Your task to perform on an android device: toggle wifi Image 0: 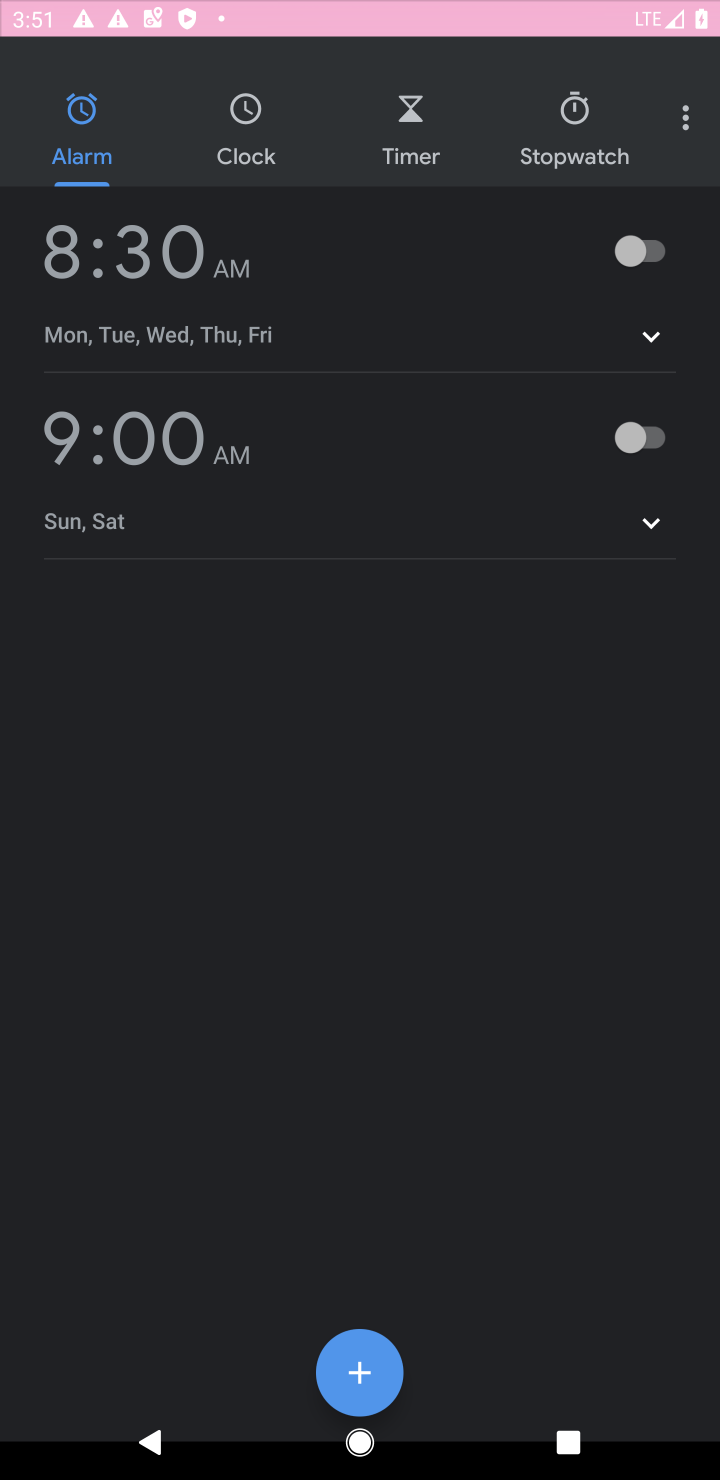
Step 0: press home button
Your task to perform on an android device: toggle wifi Image 1: 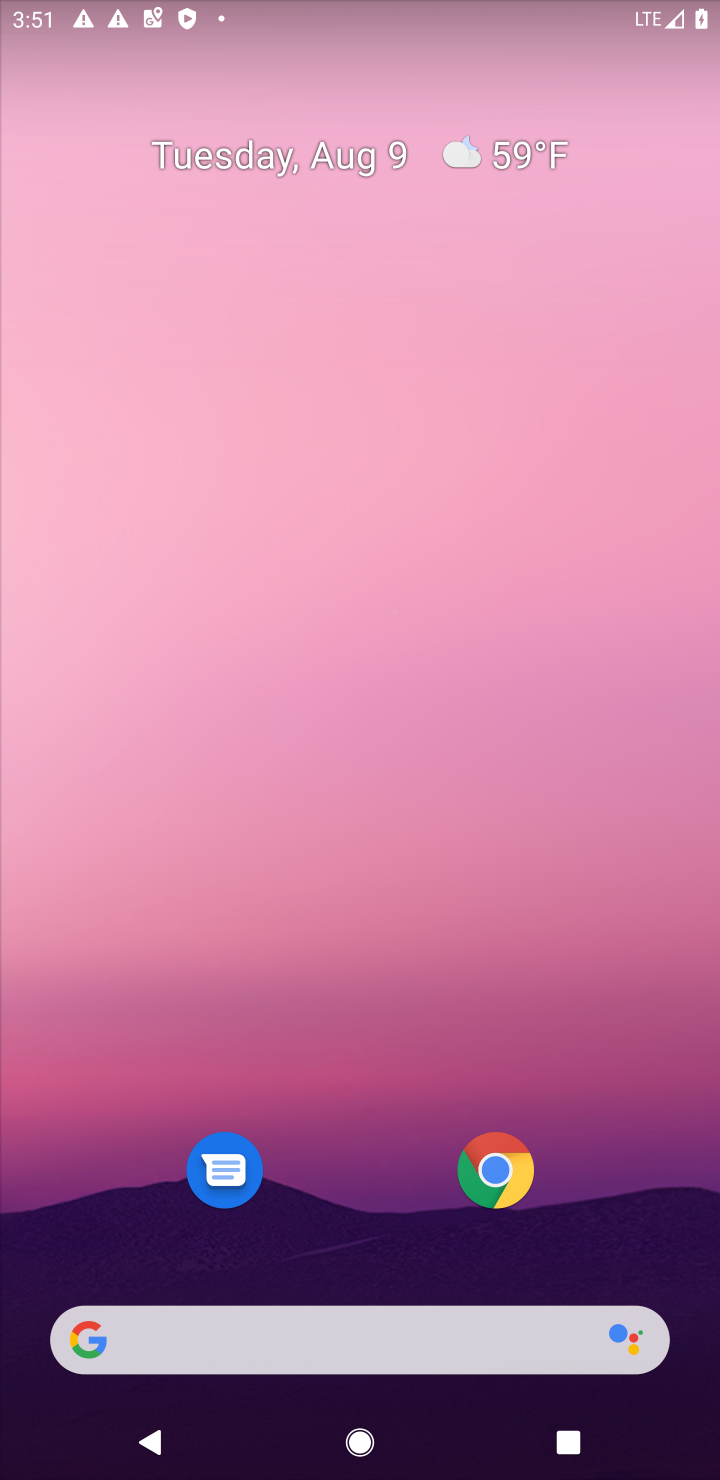
Step 1: drag from (363, 1164) to (374, 53)
Your task to perform on an android device: toggle wifi Image 2: 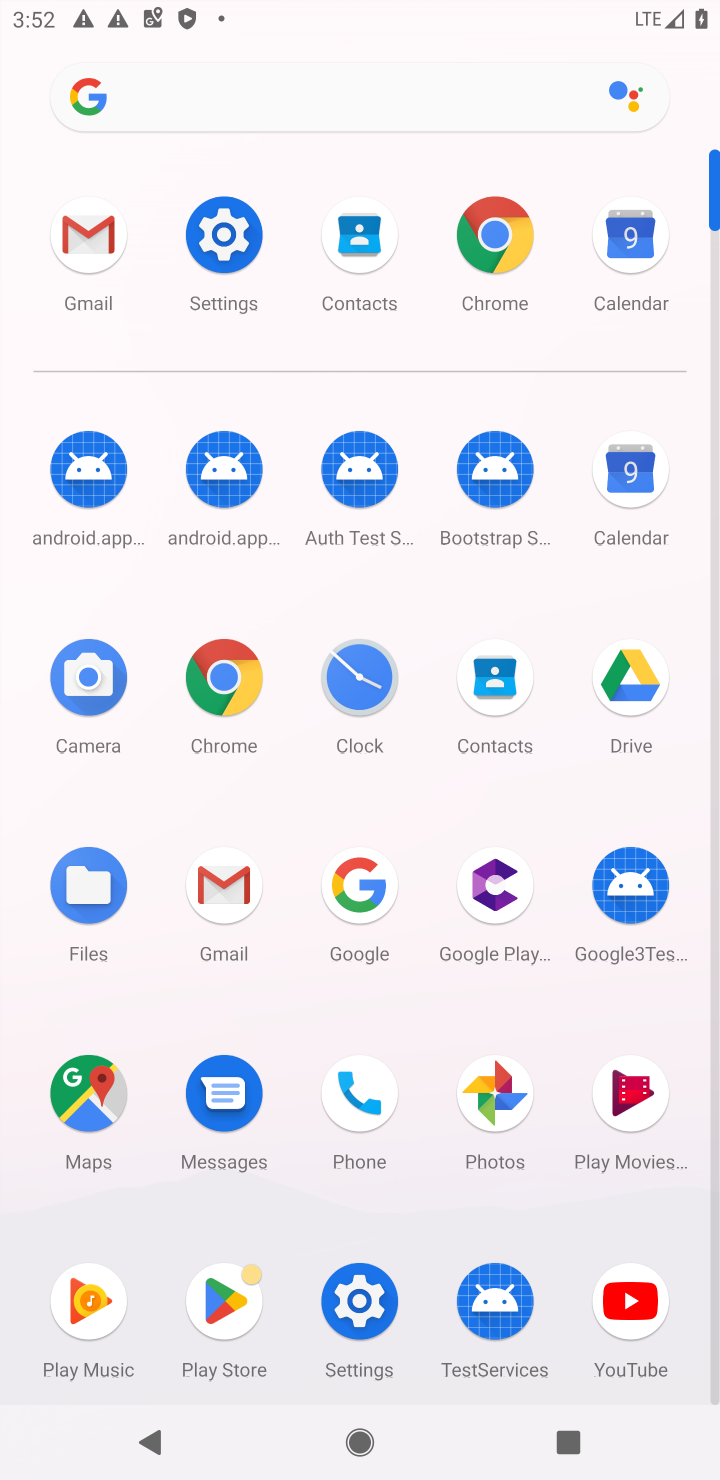
Step 2: click (228, 239)
Your task to perform on an android device: toggle wifi Image 3: 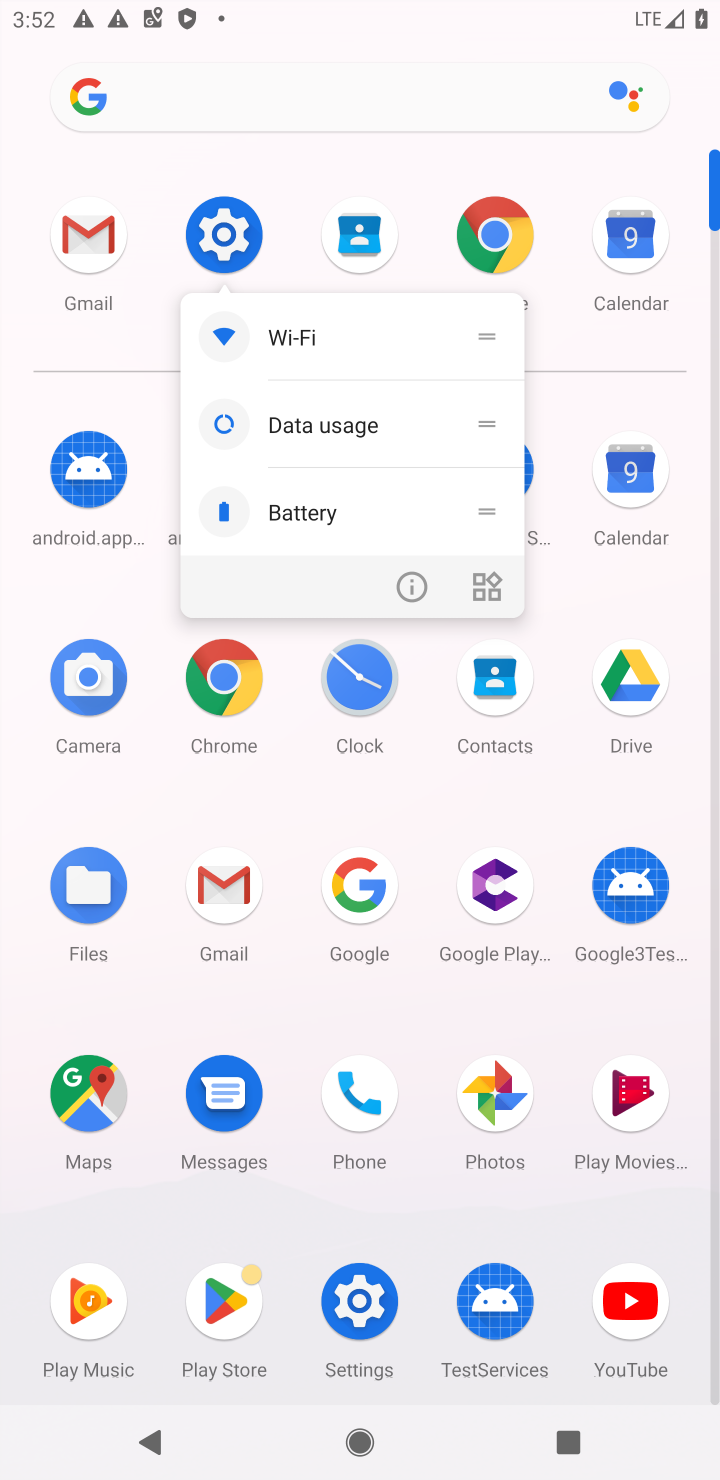
Step 3: click (229, 223)
Your task to perform on an android device: toggle wifi Image 4: 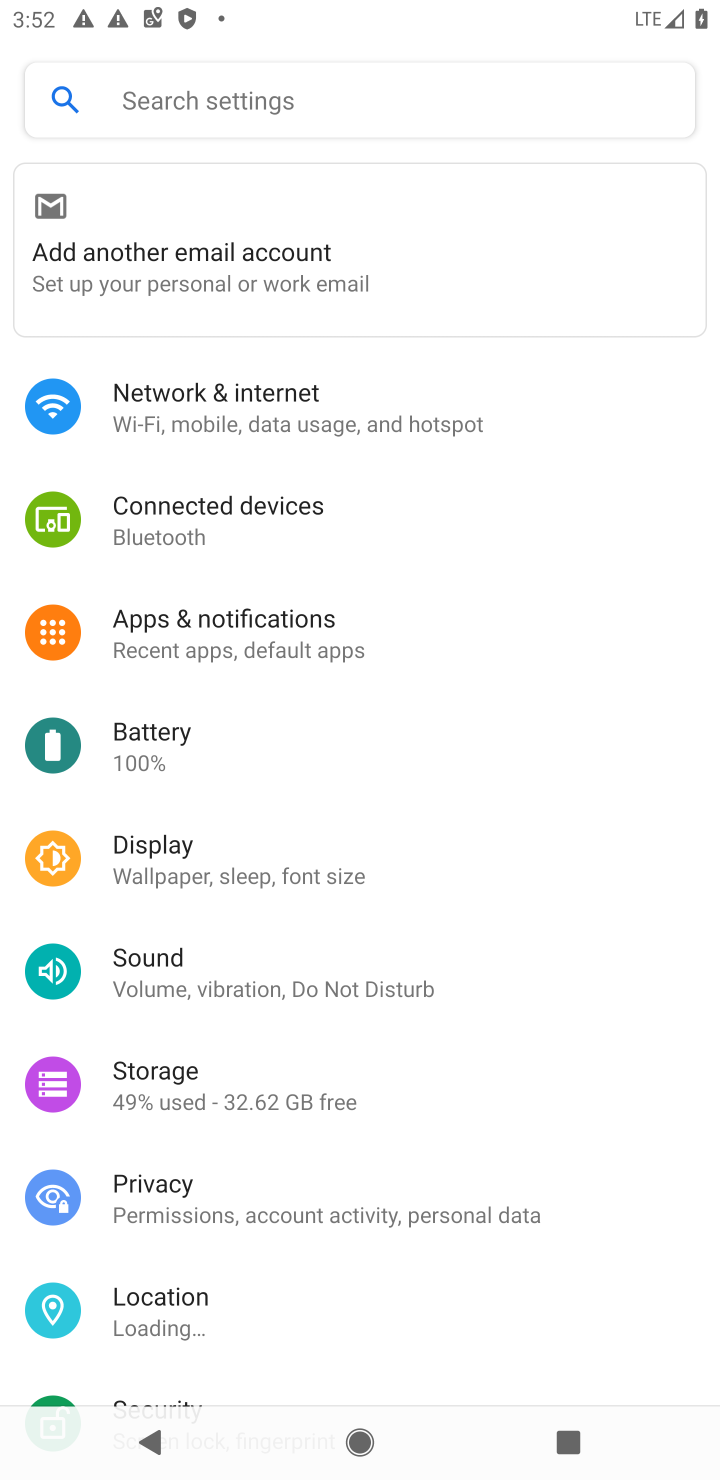
Step 4: click (230, 396)
Your task to perform on an android device: toggle wifi Image 5: 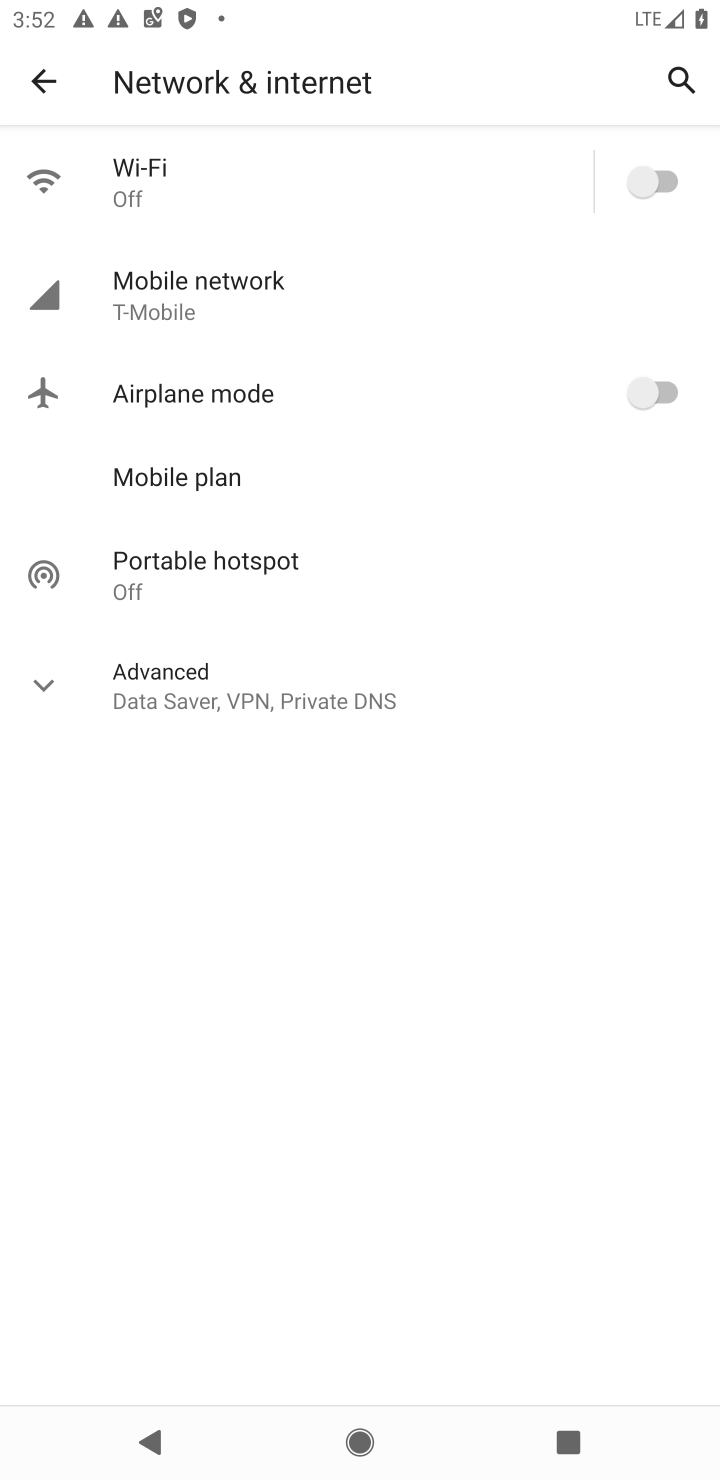
Step 5: click (680, 175)
Your task to perform on an android device: toggle wifi Image 6: 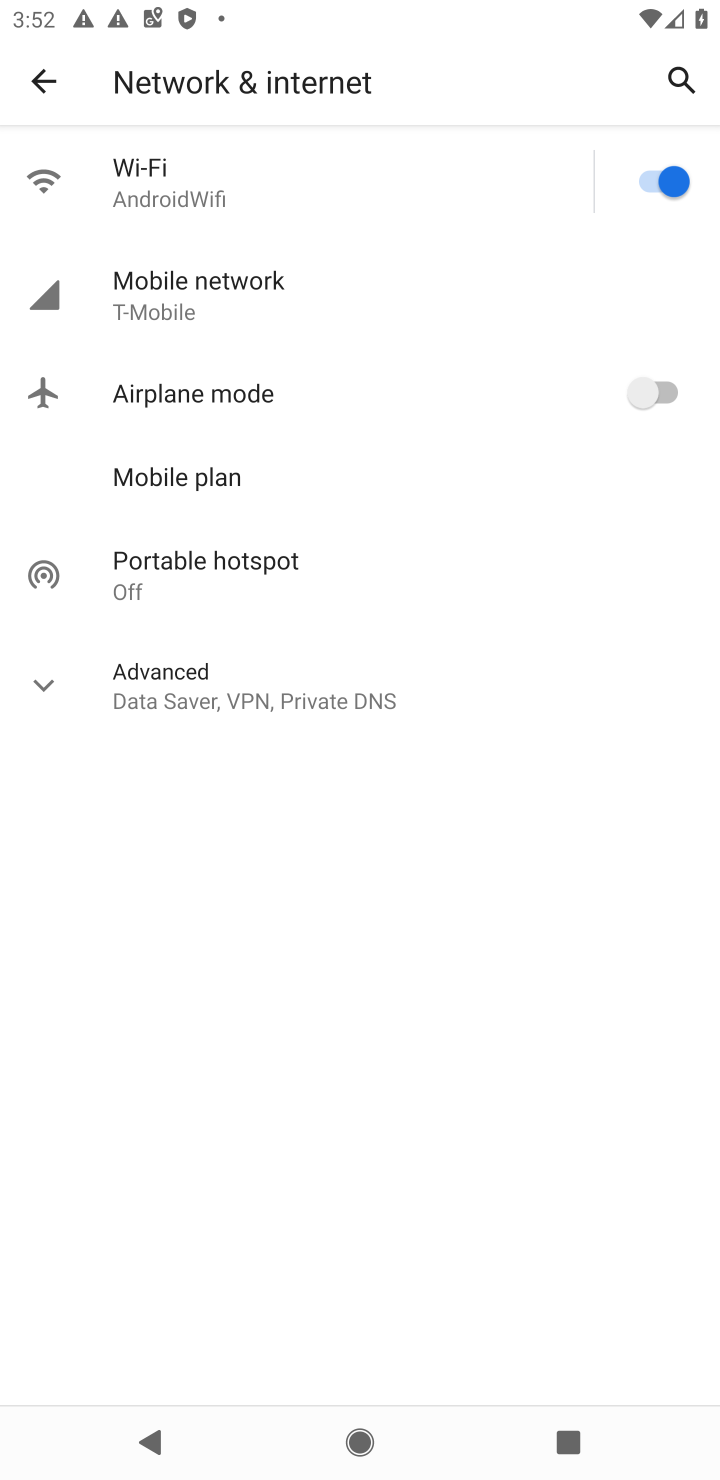
Step 6: task complete